Your task to perform on an android device: Open Reddit.com Image 0: 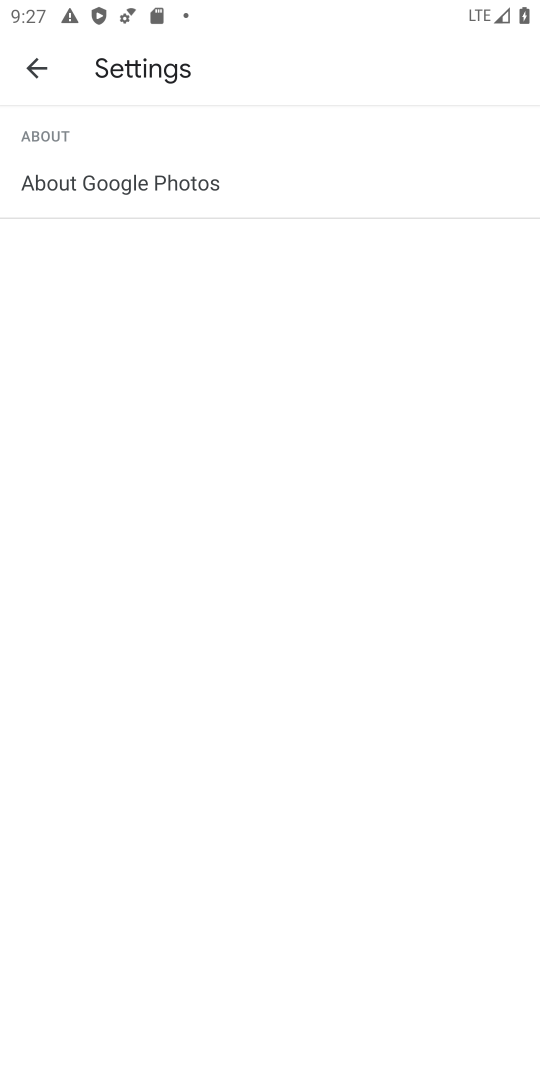
Step 0: press home button
Your task to perform on an android device: Open Reddit.com Image 1: 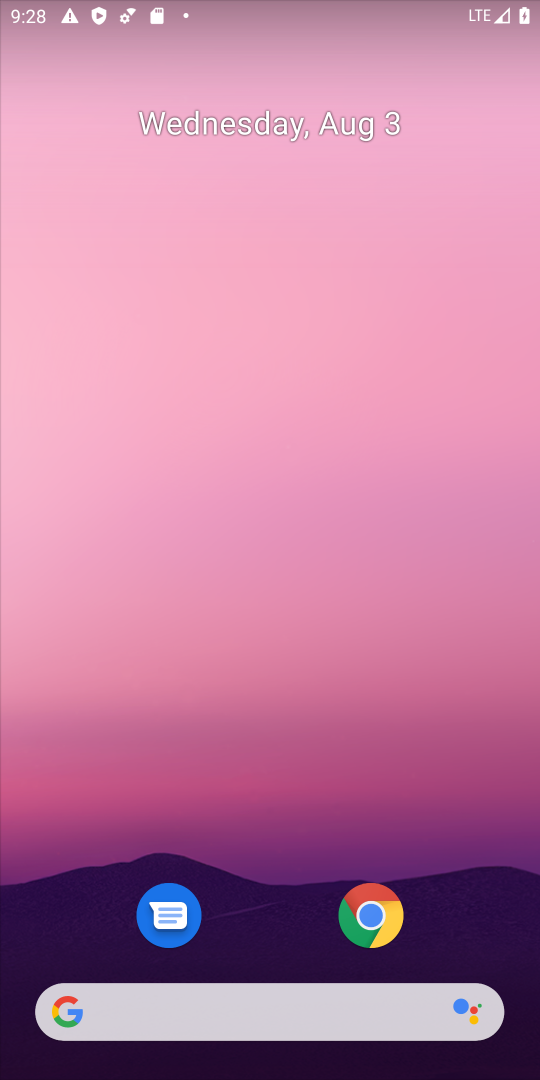
Step 1: drag from (262, 971) to (266, 490)
Your task to perform on an android device: Open Reddit.com Image 2: 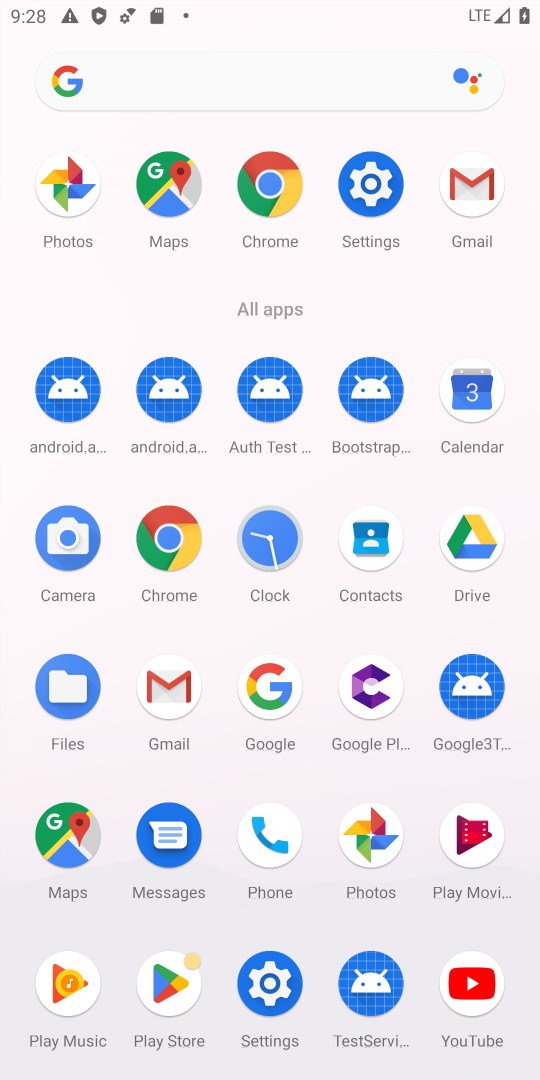
Step 2: click (282, 692)
Your task to perform on an android device: Open Reddit.com Image 3: 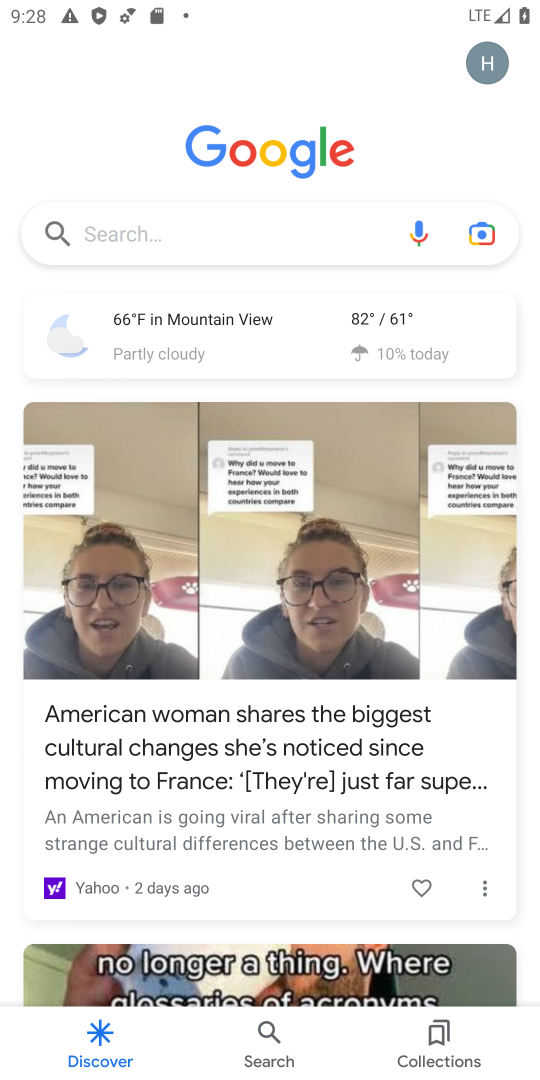
Step 3: click (131, 233)
Your task to perform on an android device: Open Reddit.com Image 4: 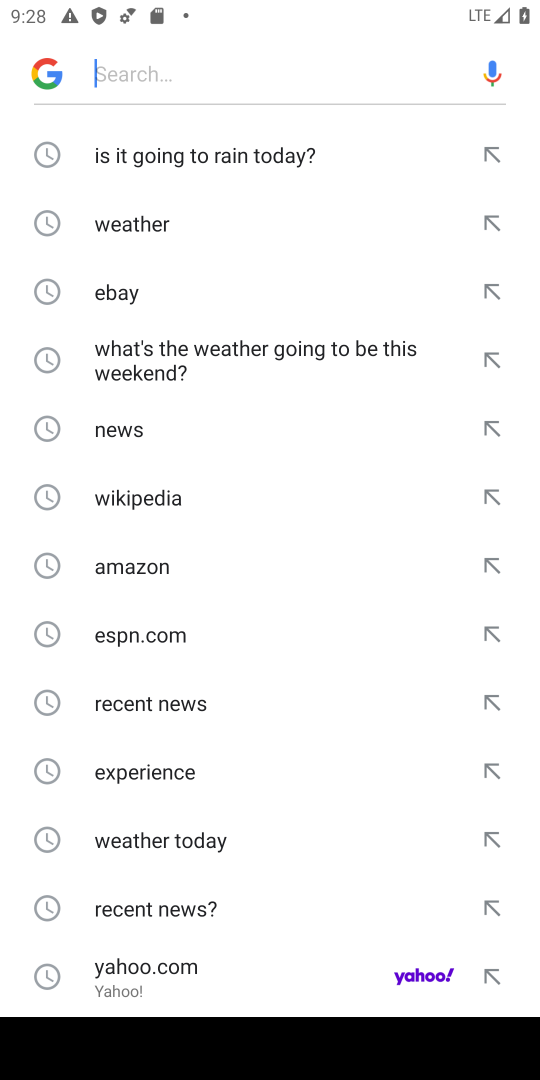
Step 4: drag from (244, 791) to (272, 310)
Your task to perform on an android device: Open Reddit.com Image 5: 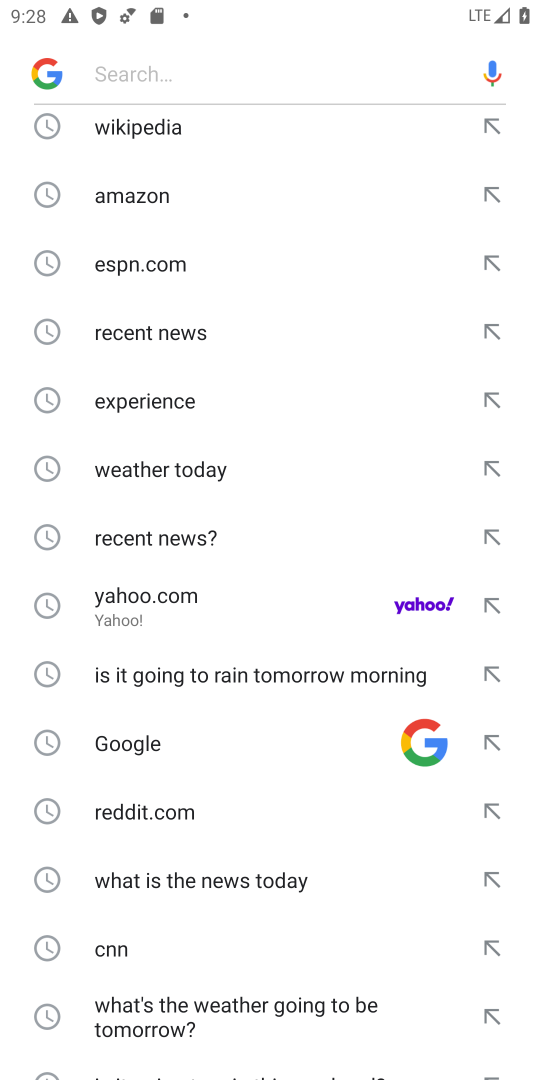
Step 5: drag from (236, 942) to (202, 490)
Your task to perform on an android device: Open Reddit.com Image 6: 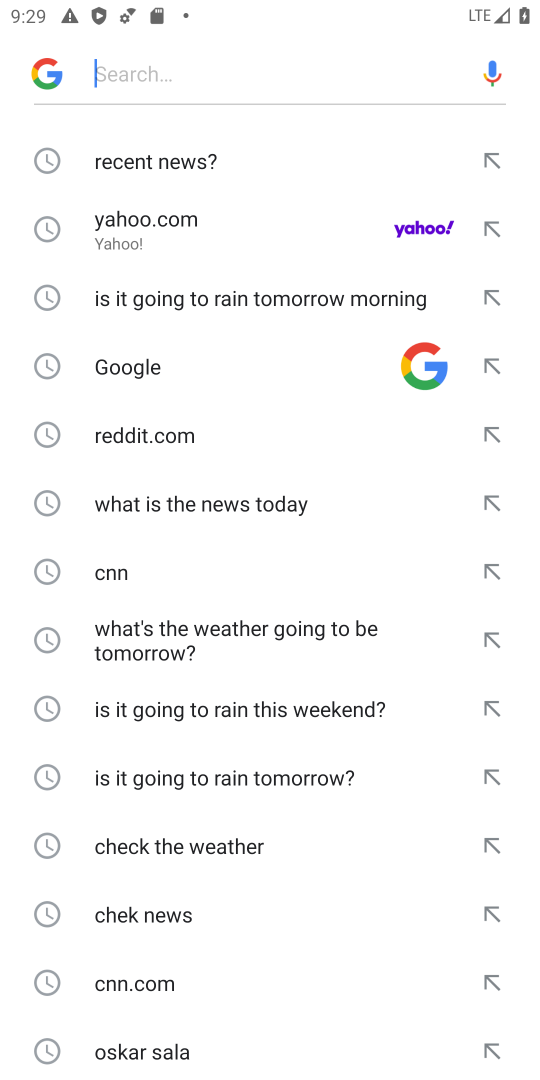
Step 6: click (111, 445)
Your task to perform on an android device: Open Reddit.com Image 7: 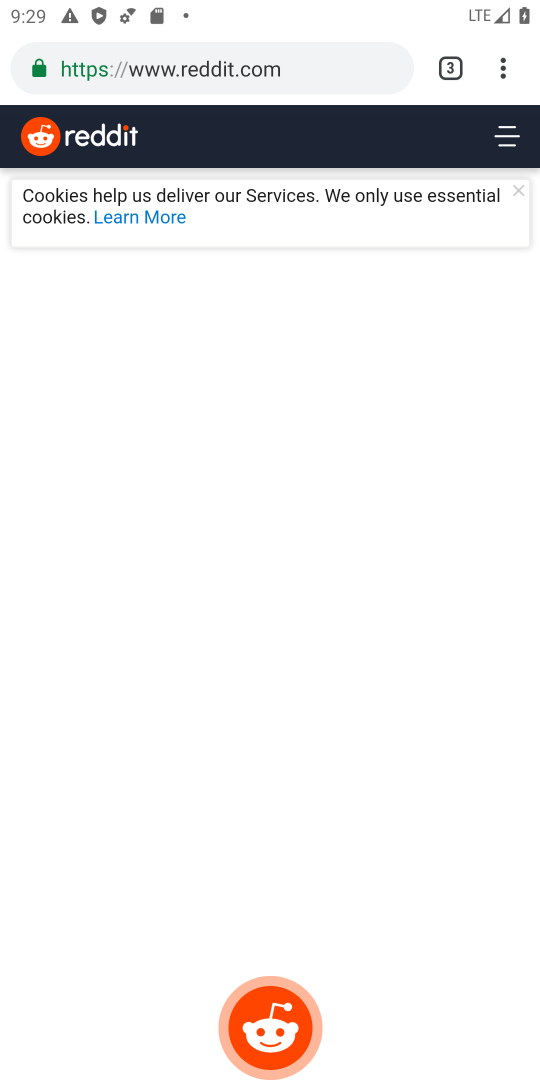
Step 7: task complete